Your task to perform on an android device: Set the phone to "Do not disturb". Image 0: 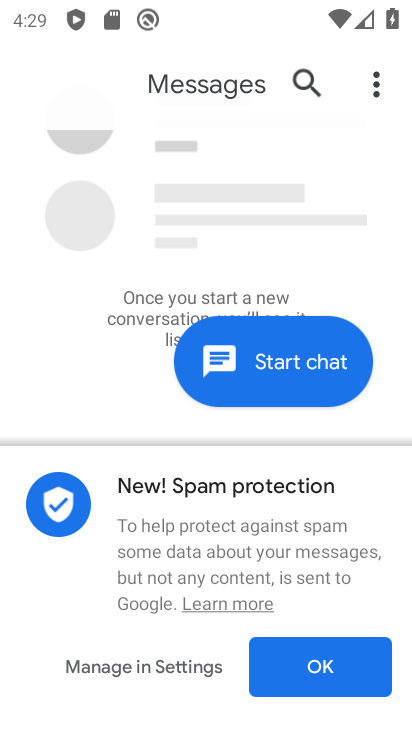
Step 0: press home button
Your task to perform on an android device: Set the phone to "Do not disturb". Image 1: 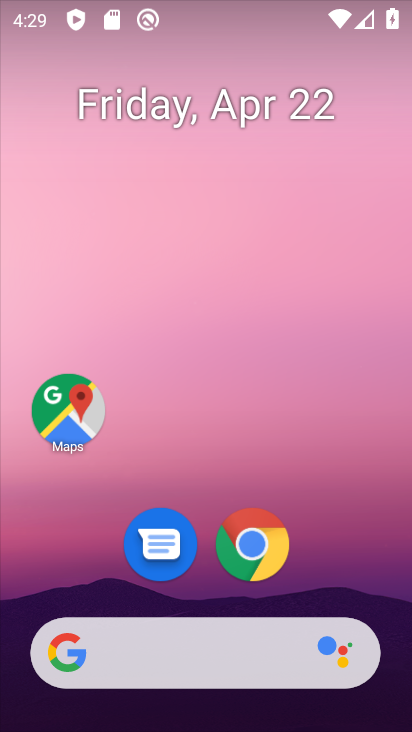
Step 1: drag from (206, 620) to (206, 293)
Your task to perform on an android device: Set the phone to "Do not disturb". Image 2: 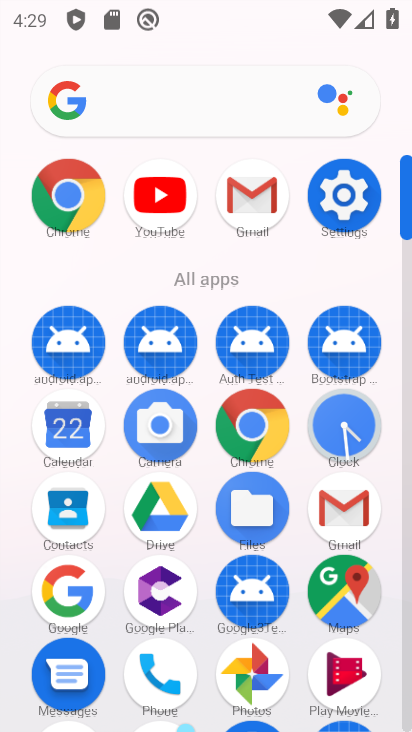
Step 2: click (352, 200)
Your task to perform on an android device: Set the phone to "Do not disturb". Image 3: 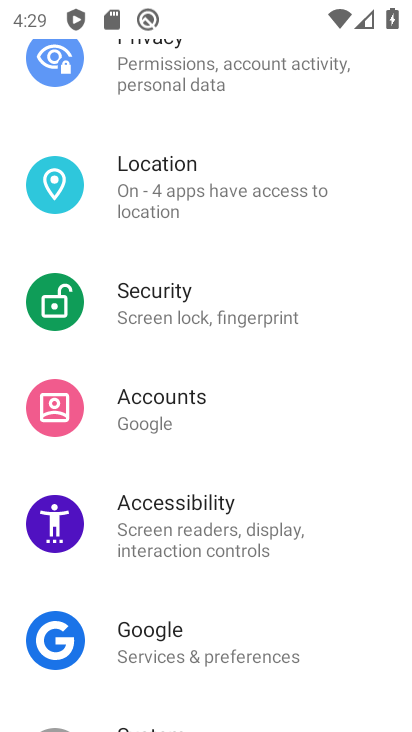
Step 3: drag from (215, 701) to (278, 325)
Your task to perform on an android device: Set the phone to "Do not disturb". Image 4: 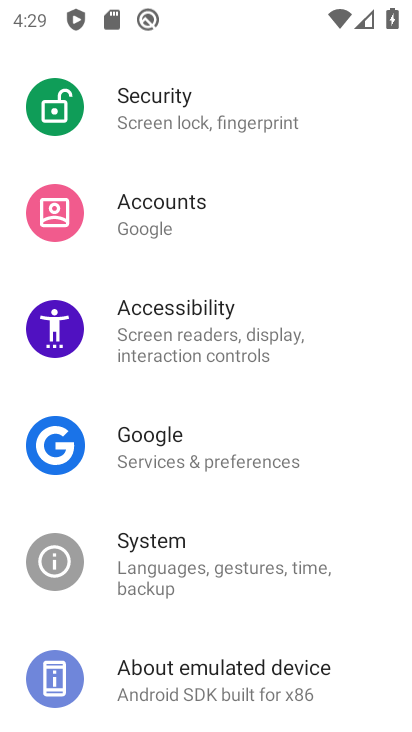
Step 4: drag from (202, 228) to (156, 617)
Your task to perform on an android device: Set the phone to "Do not disturb". Image 5: 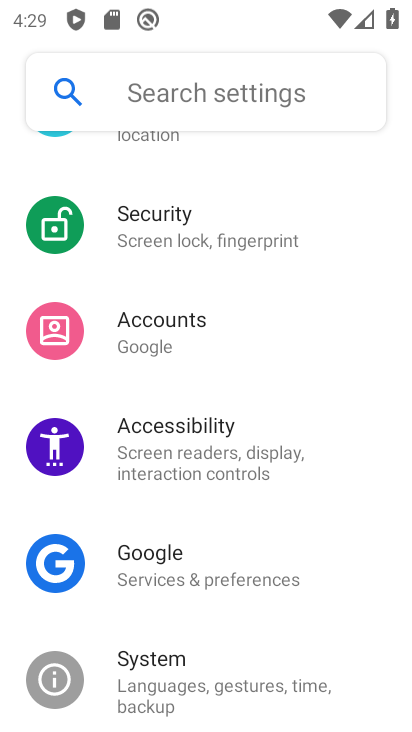
Step 5: drag from (257, 170) to (222, 590)
Your task to perform on an android device: Set the phone to "Do not disturb". Image 6: 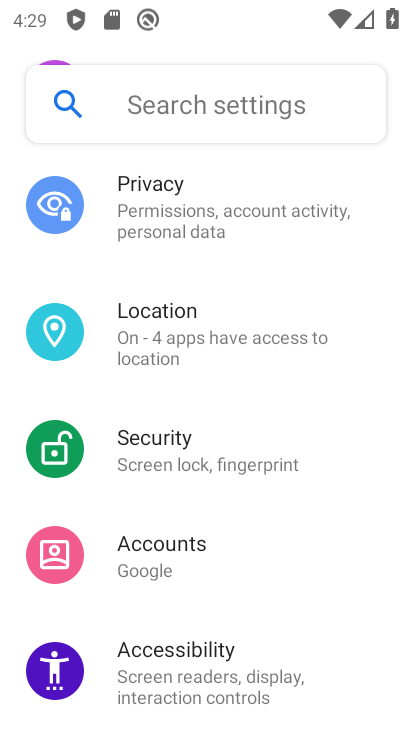
Step 6: drag from (288, 278) to (248, 551)
Your task to perform on an android device: Set the phone to "Do not disturb". Image 7: 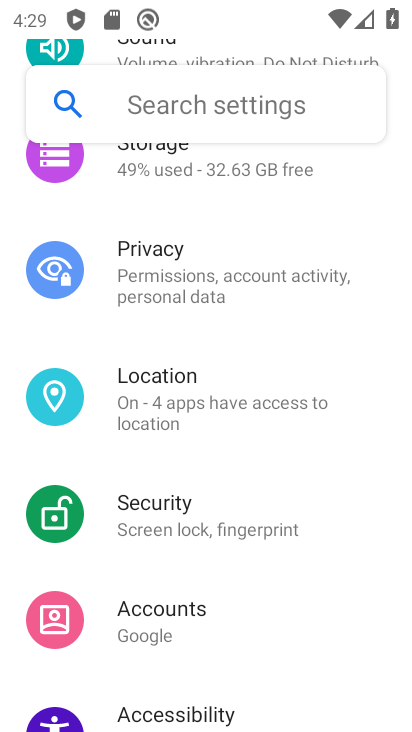
Step 7: drag from (275, 156) to (236, 634)
Your task to perform on an android device: Set the phone to "Do not disturb". Image 8: 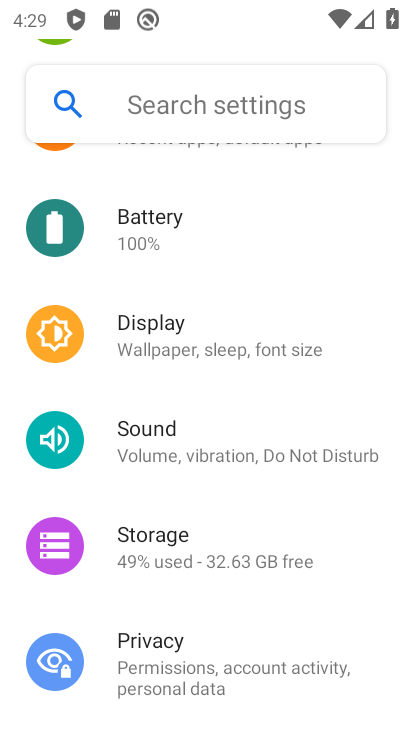
Step 8: click (211, 455)
Your task to perform on an android device: Set the phone to "Do not disturb". Image 9: 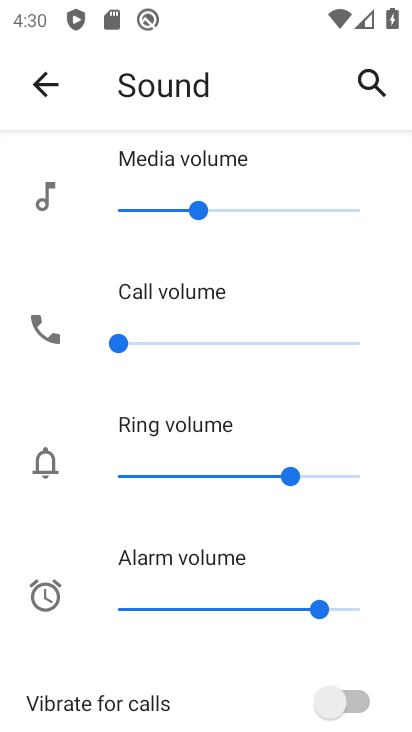
Step 9: task complete